Your task to perform on an android device: turn on priority inbox in the gmail app Image 0: 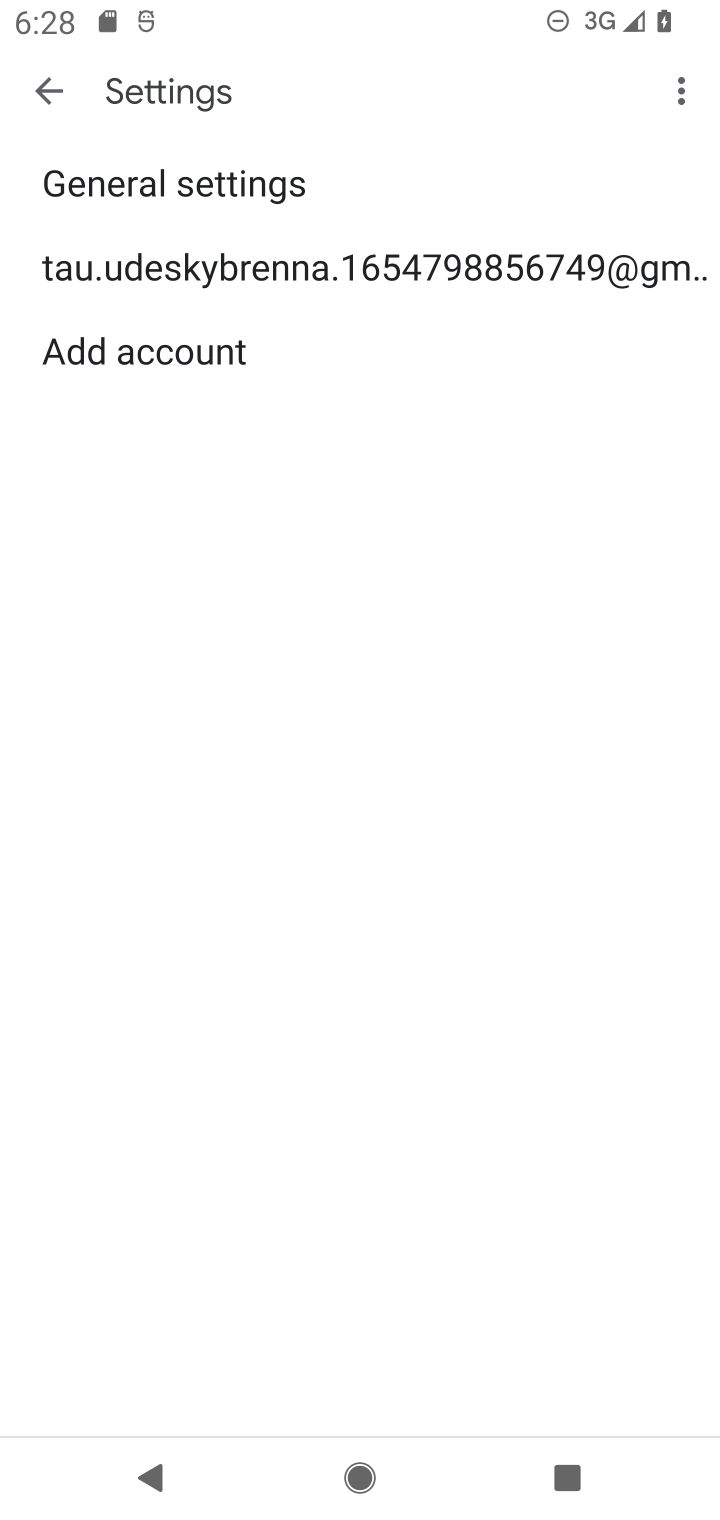
Step 0: press home button
Your task to perform on an android device: turn on priority inbox in the gmail app Image 1: 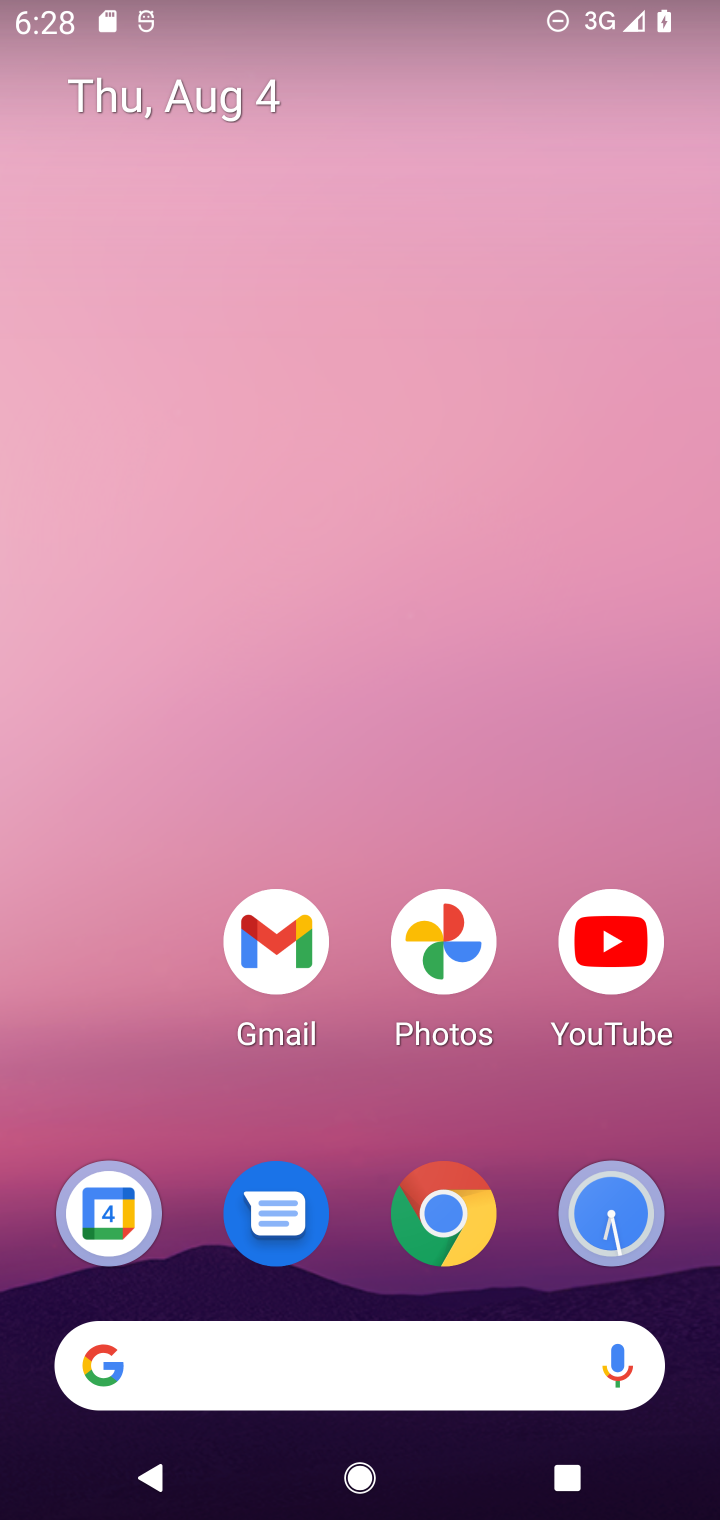
Step 1: drag from (140, 1068) to (132, 331)
Your task to perform on an android device: turn on priority inbox in the gmail app Image 2: 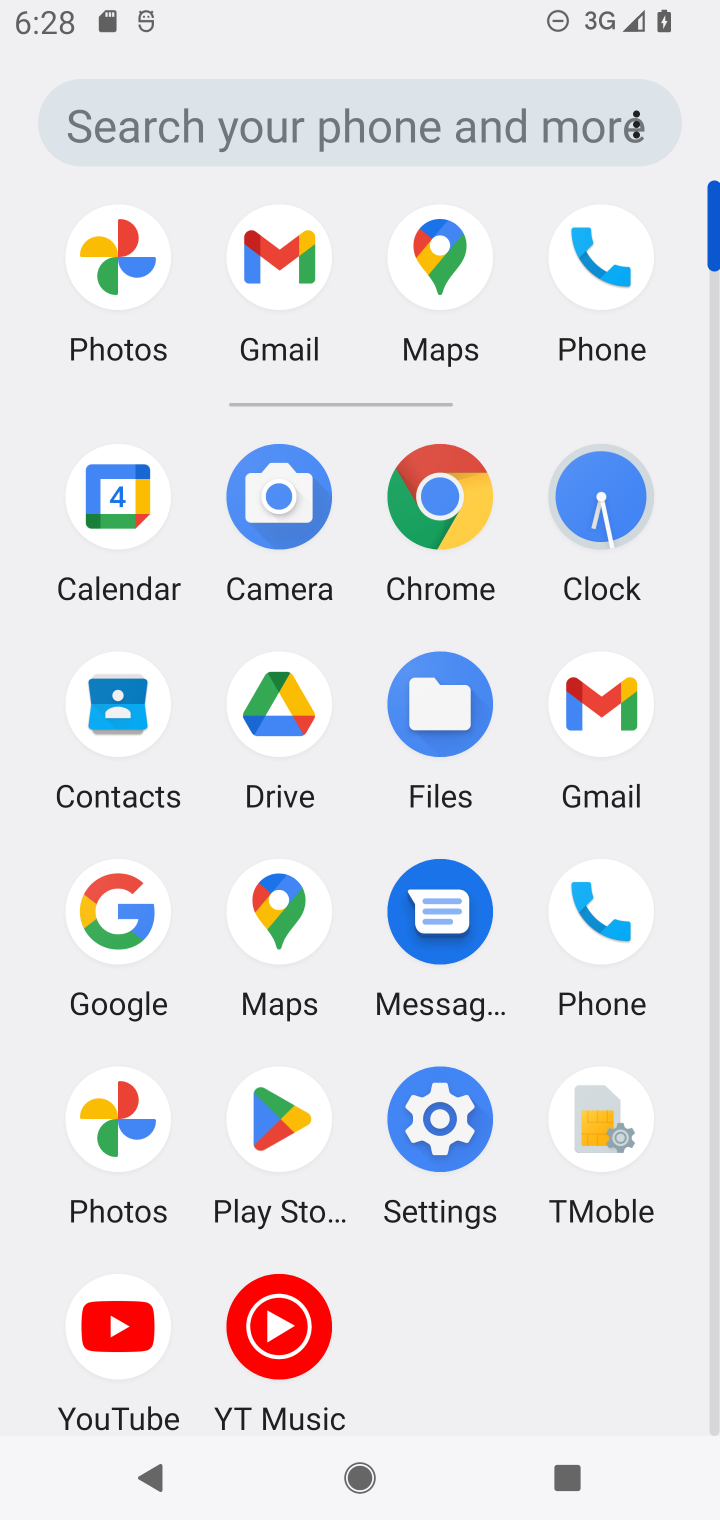
Step 2: click (616, 697)
Your task to perform on an android device: turn on priority inbox in the gmail app Image 3: 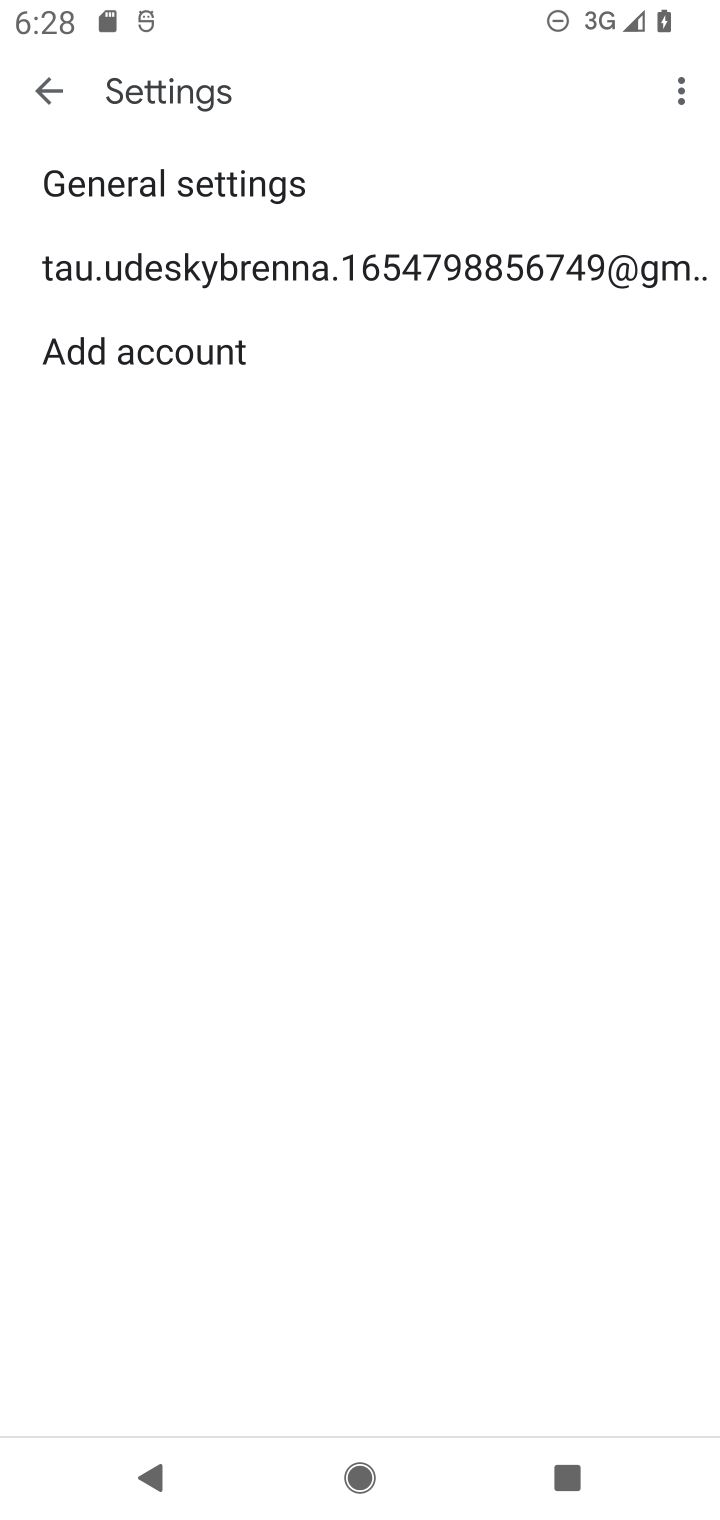
Step 3: click (281, 259)
Your task to perform on an android device: turn on priority inbox in the gmail app Image 4: 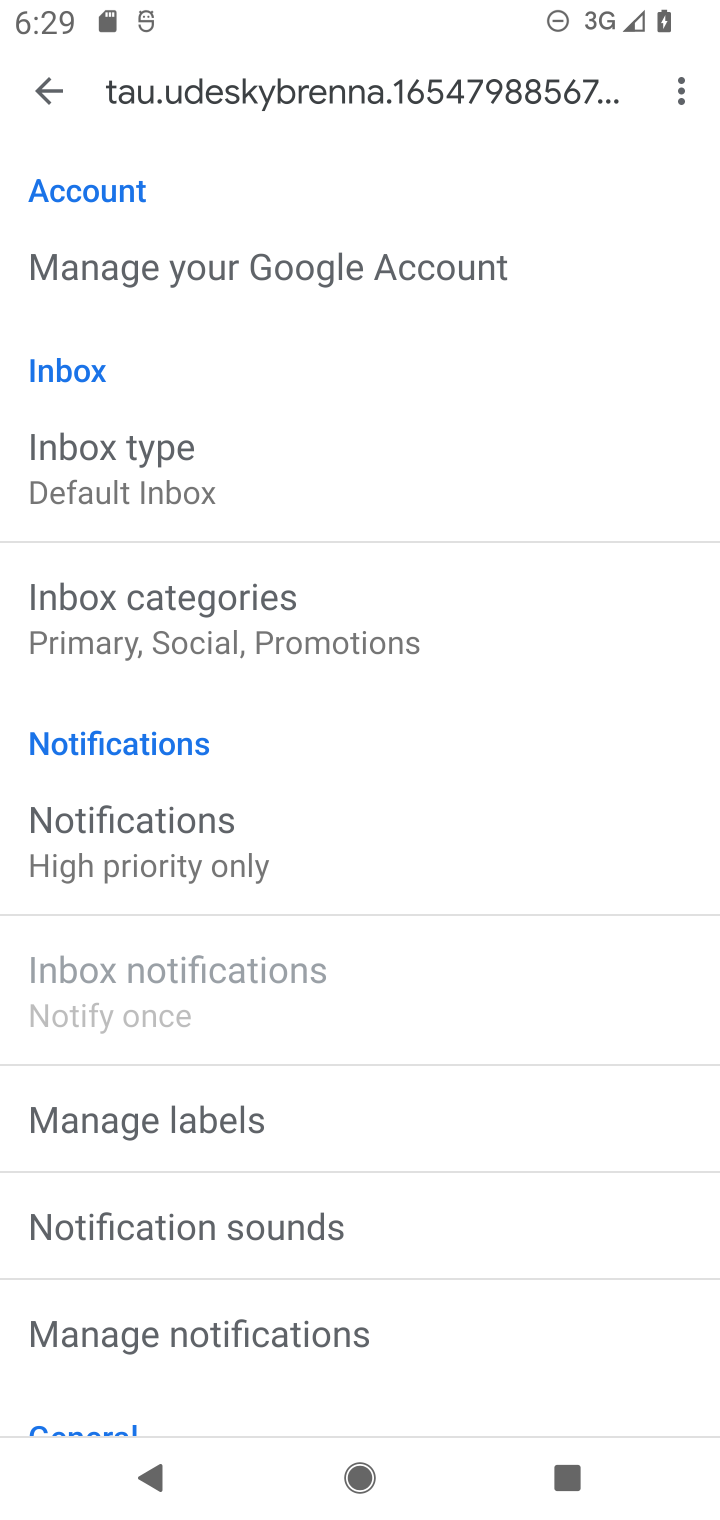
Step 4: drag from (494, 904) to (511, 601)
Your task to perform on an android device: turn on priority inbox in the gmail app Image 5: 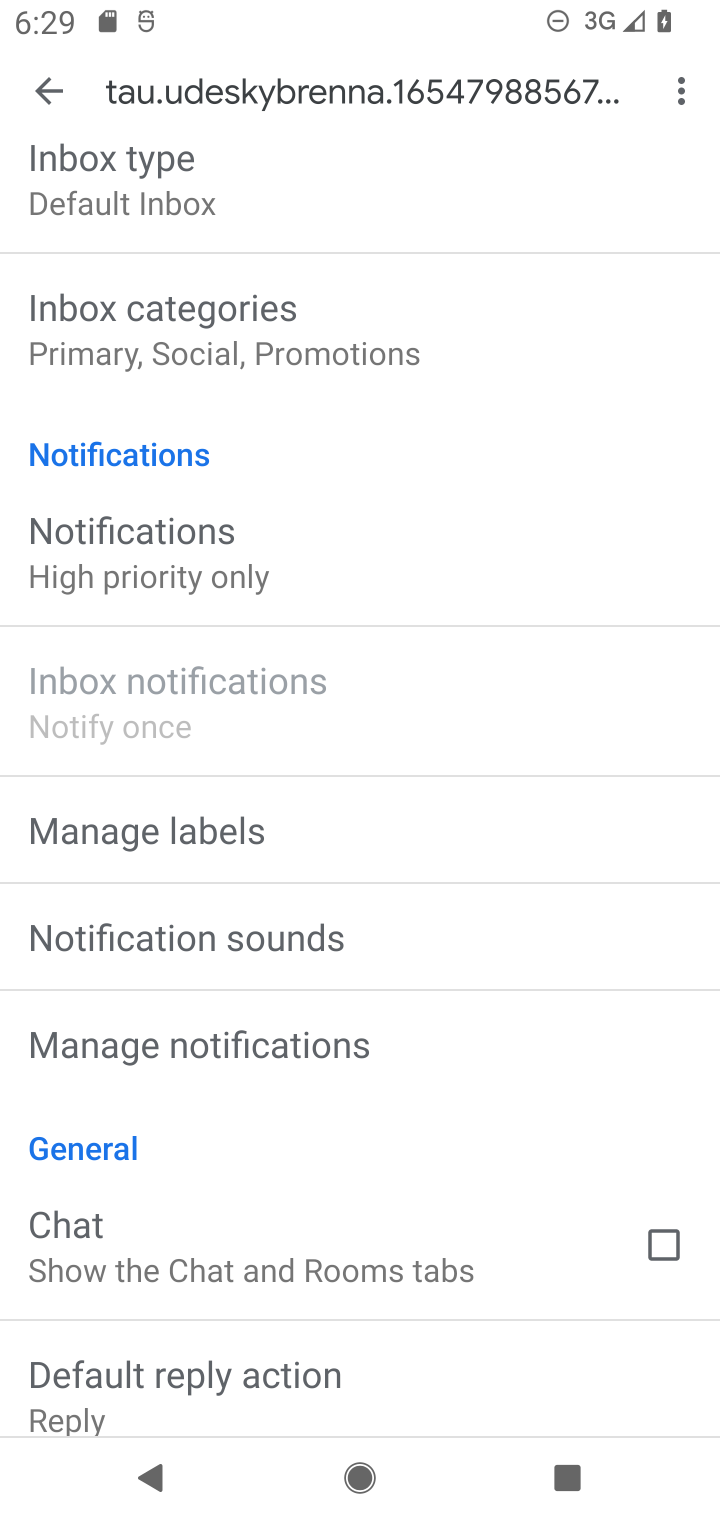
Step 5: drag from (513, 1067) to (519, 736)
Your task to perform on an android device: turn on priority inbox in the gmail app Image 6: 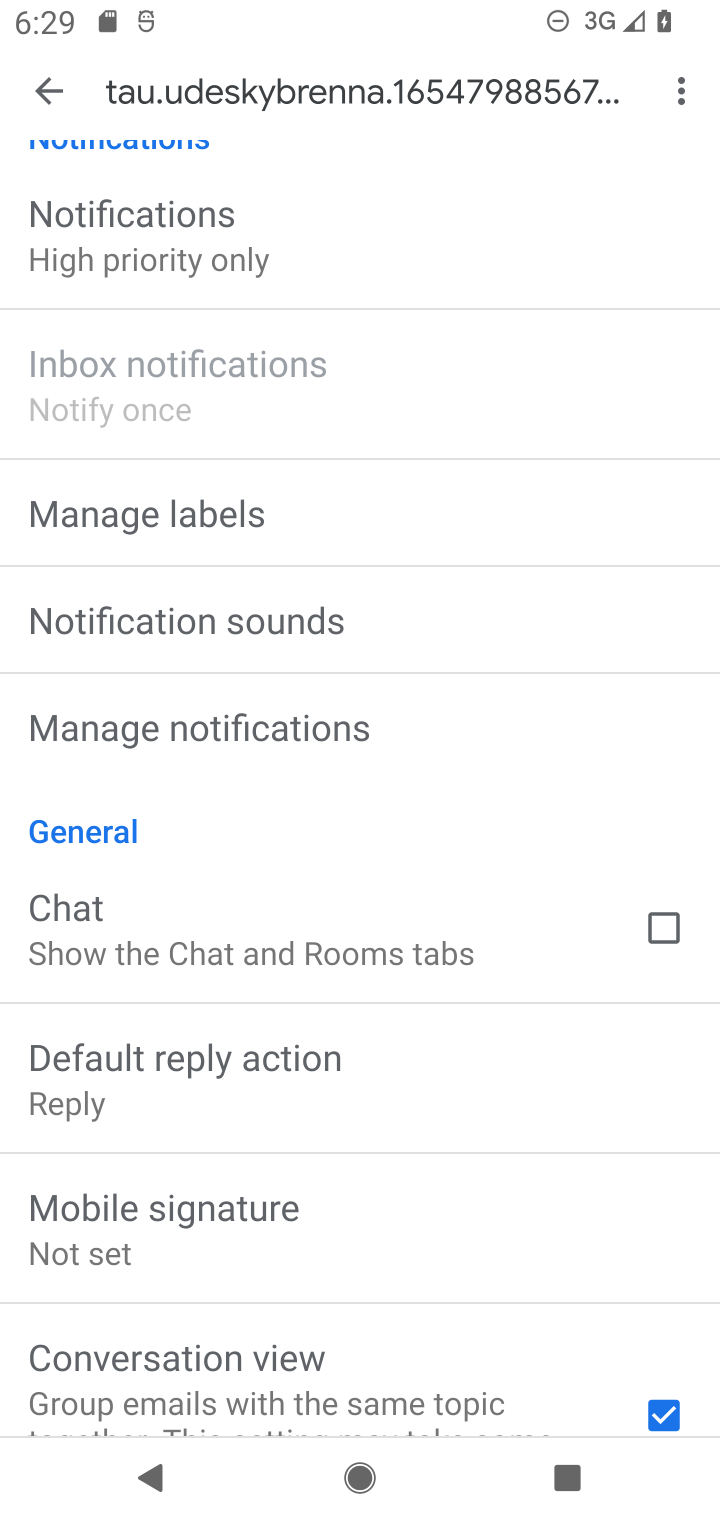
Step 6: drag from (514, 1120) to (520, 790)
Your task to perform on an android device: turn on priority inbox in the gmail app Image 7: 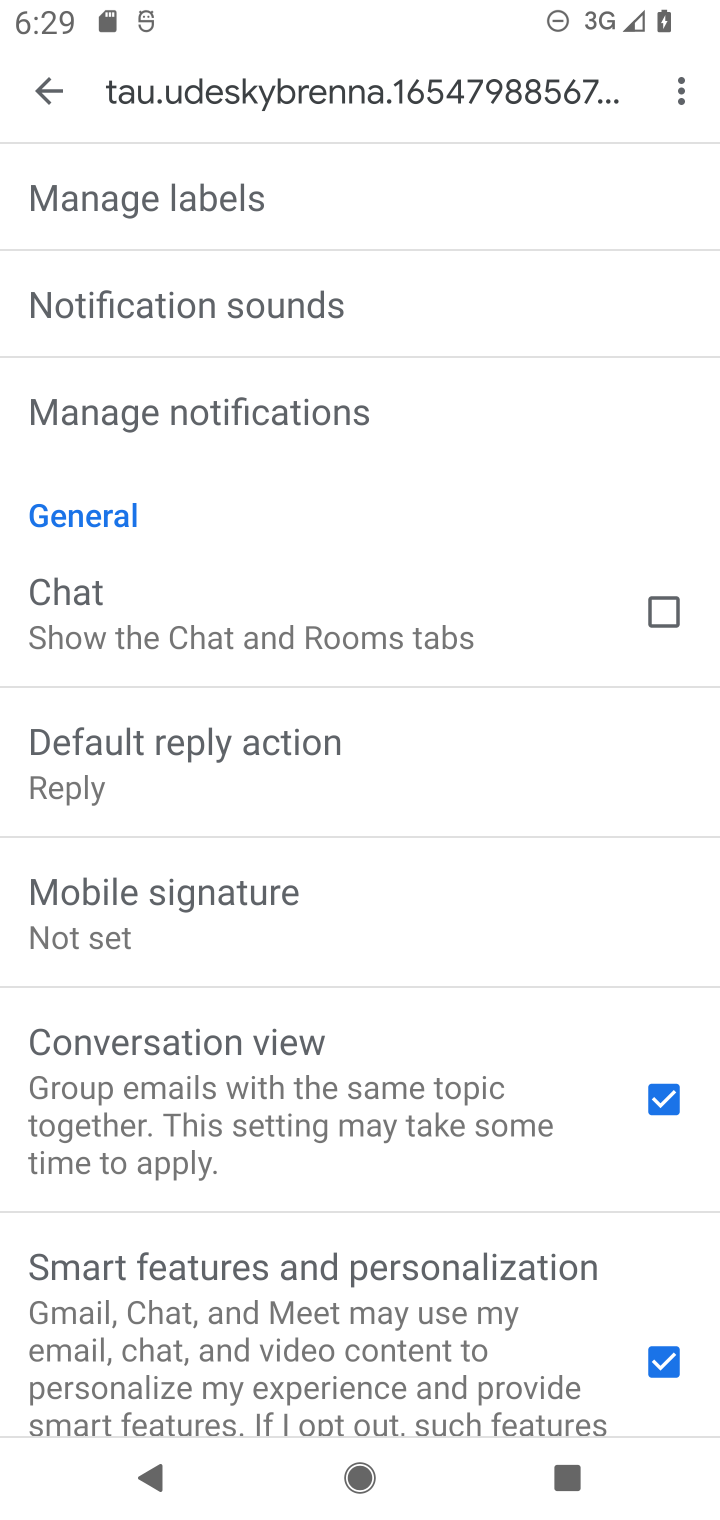
Step 7: drag from (523, 1244) to (521, 753)
Your task to perform on an android device: turn on priority inbox in the gmail app Image 8: 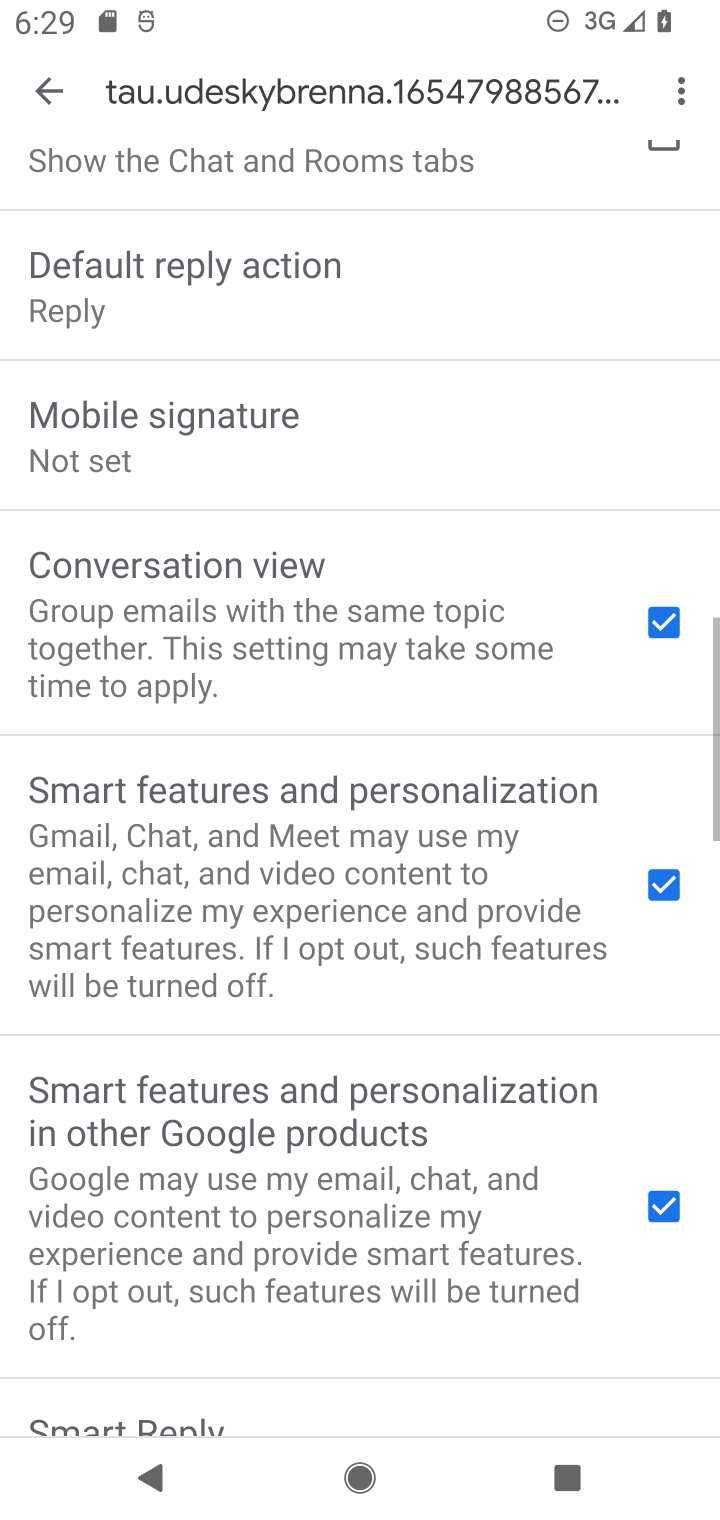
Step 8: drag from (509, 1194) to (509, 700)
Your task to perform on an android device: turn on priority inbox in the gmail app Image 9: 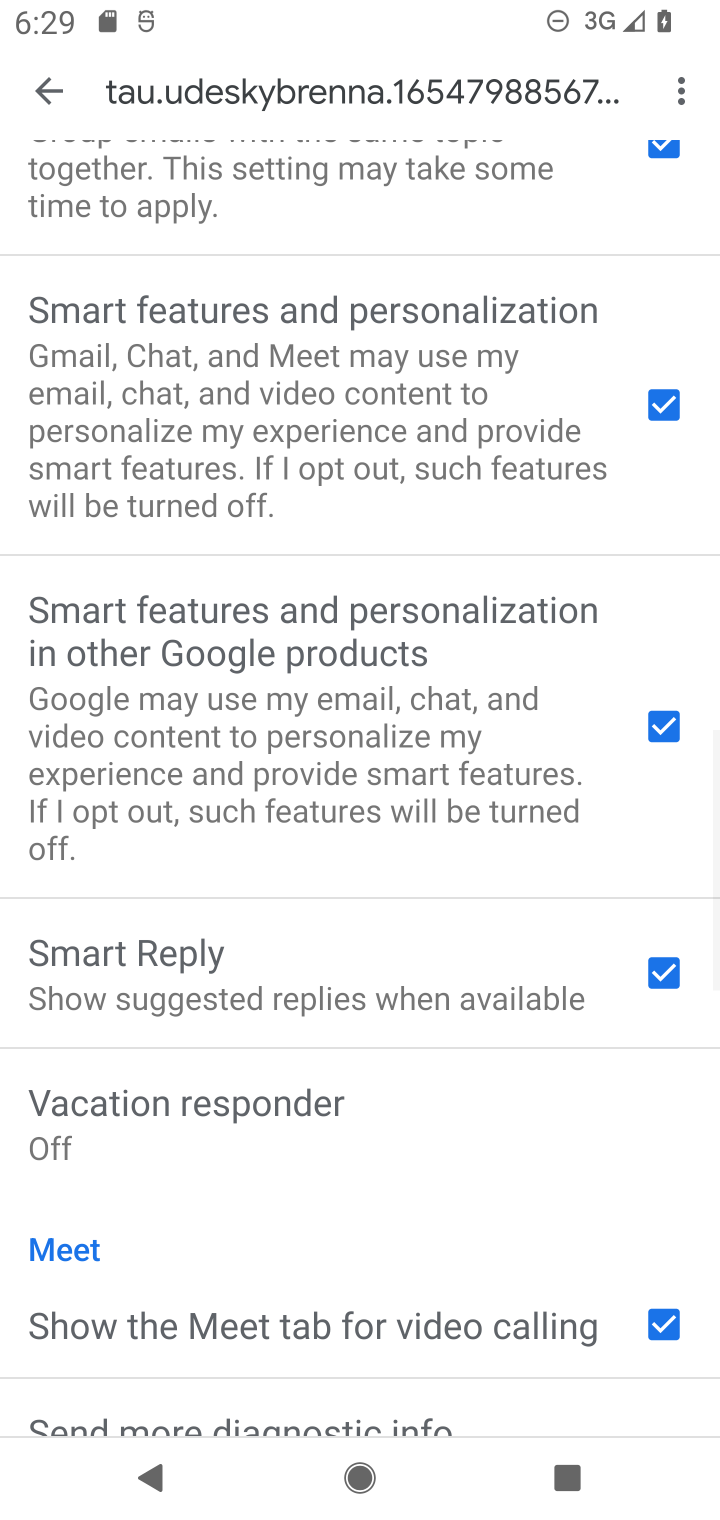
Step 9: drag from (454, 1165) to (454, 767)
Your task to perform on an android device: turn on priority inbox in the gmail app Image 10: 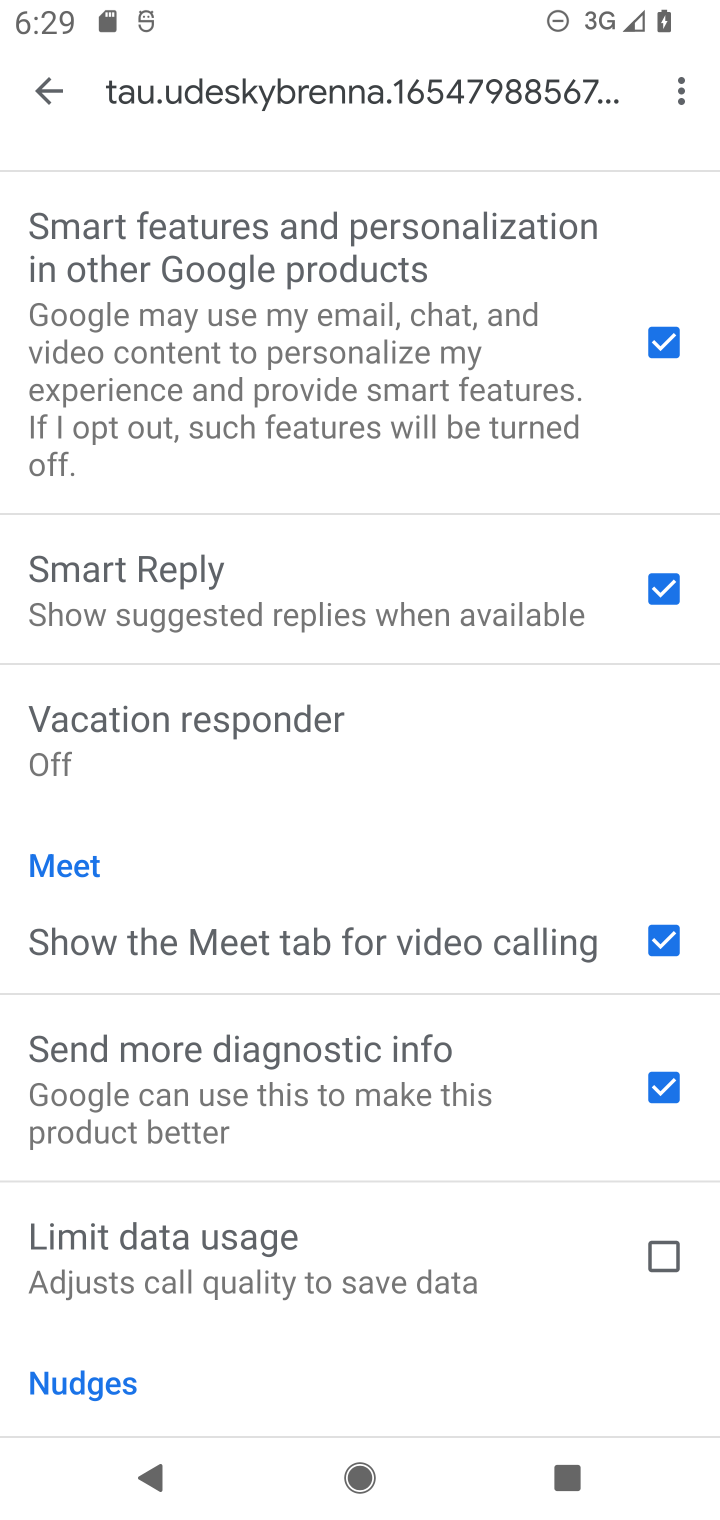
Step 10: drag from (487, 307) to (488, 576)
Your task to perform on an android device: turn on priority inbox in the gmail app Image 11: 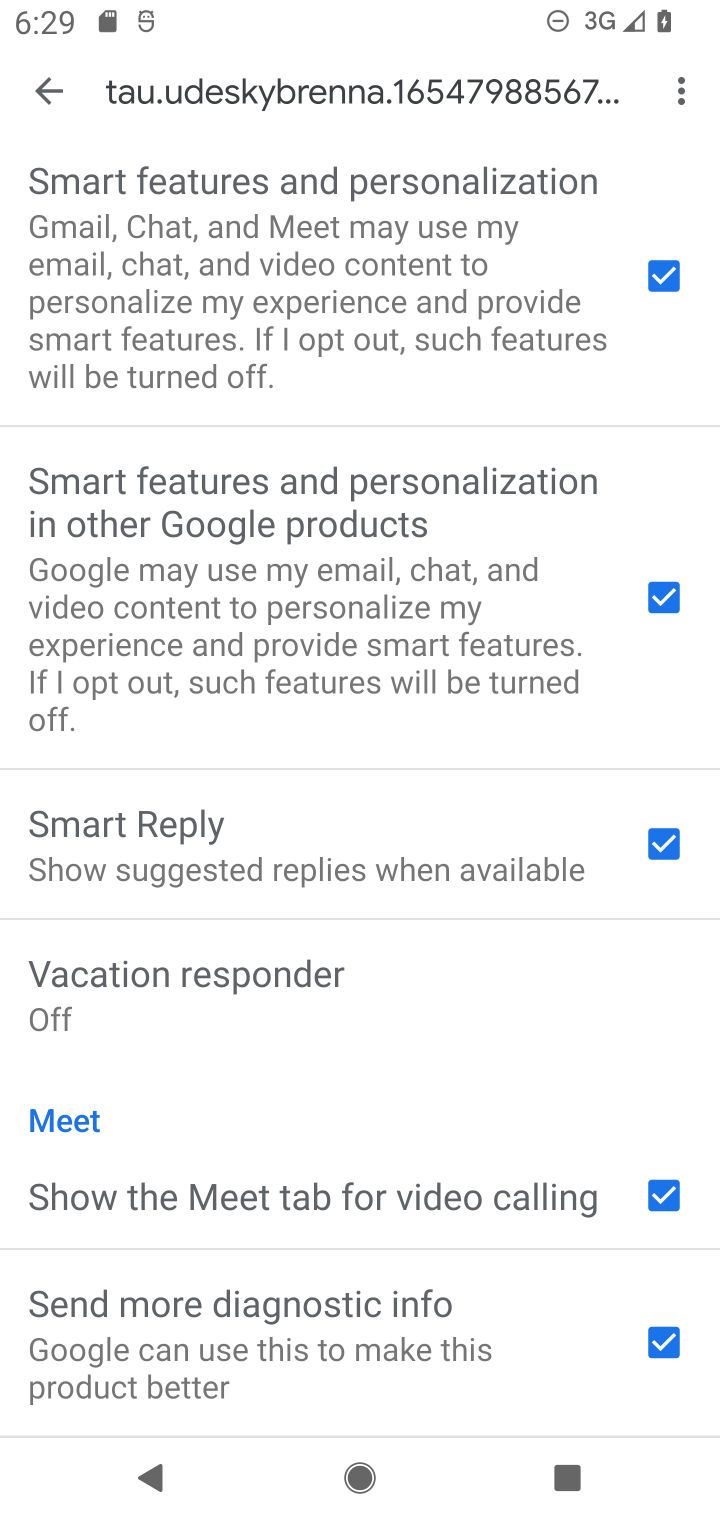
Step 11: drag from (488, 154) to (494, 514)
Your task to perform on an android device: turn on priority inbox in the gmail app Image 12: 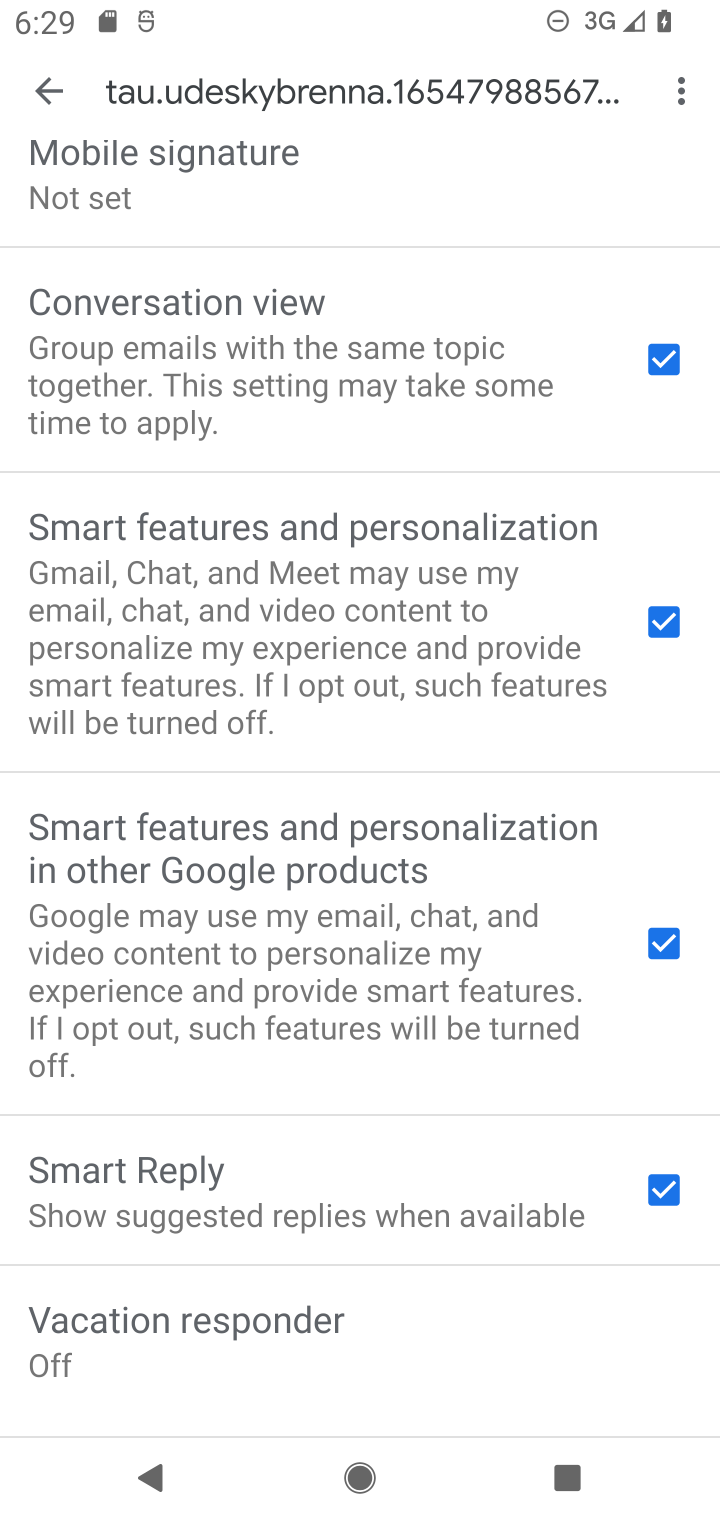
Step 12: drag from (470, 182) to (473, 626)
Your task to perform on an android device: turn on priority inbox in the gmail app Image 13: 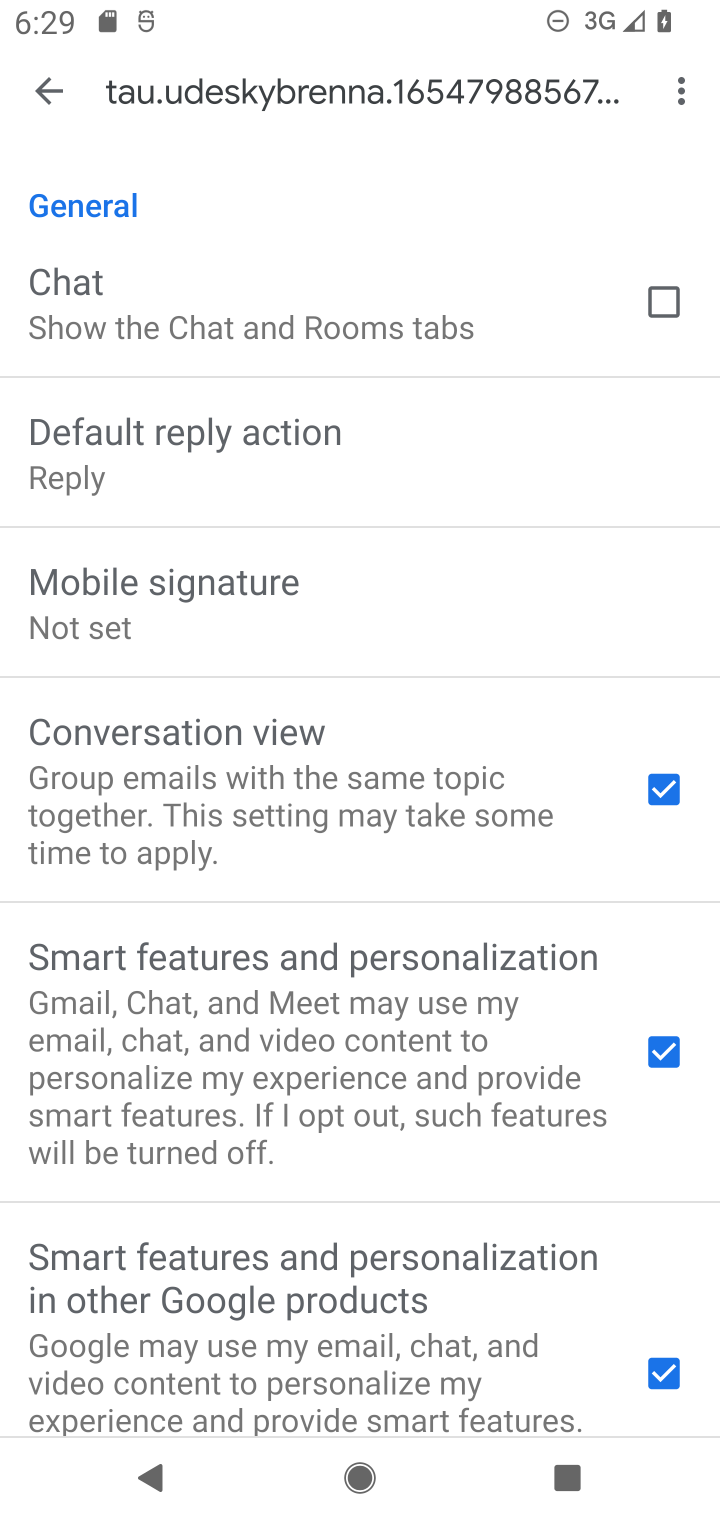
Step 13: drag from (373, 183) to (410, 653)
Your task to perform on an android device: turn on priority inbox in the gmail app Image 14: 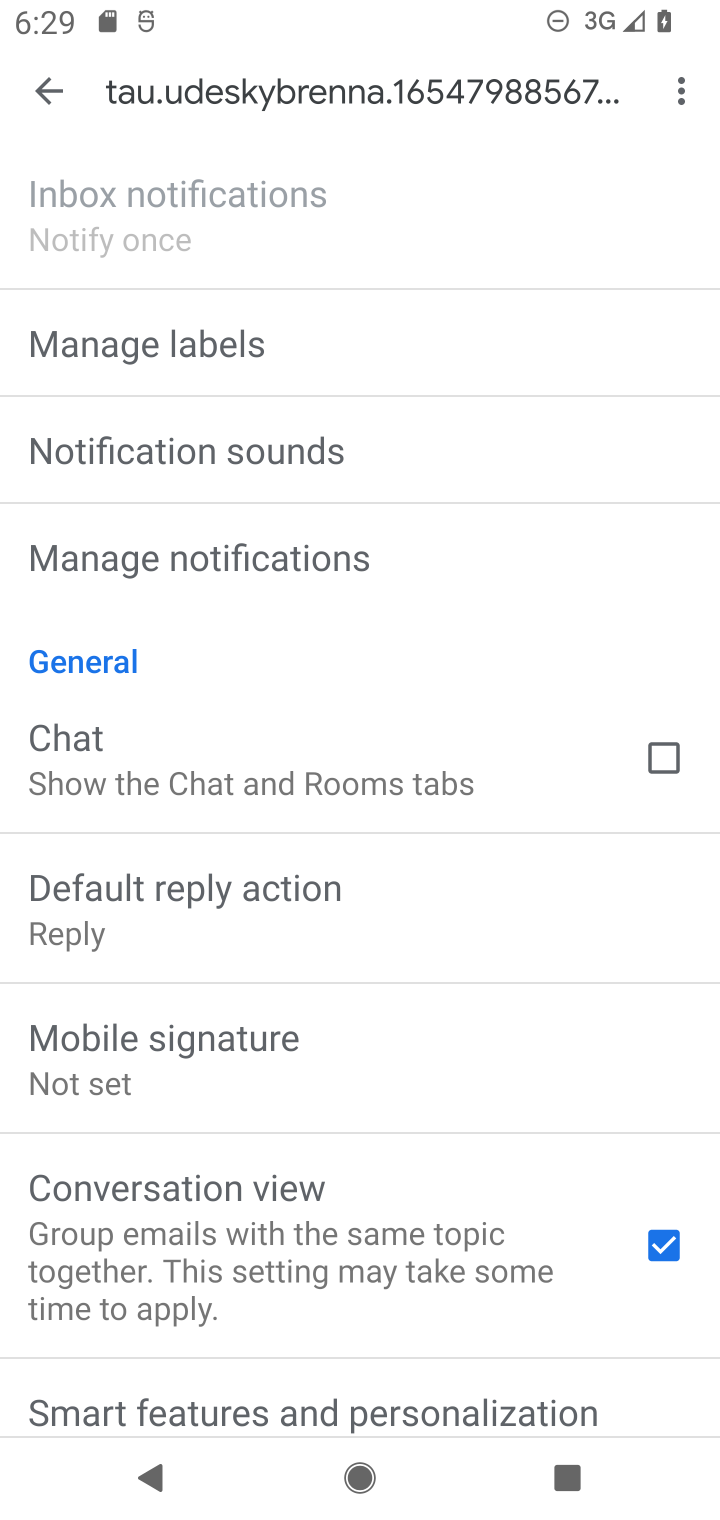
Step 14: drag from (423, 159) to (438, 620)
Your task to perform on an android device: turn on priority inbox in the gmail app Image 15: 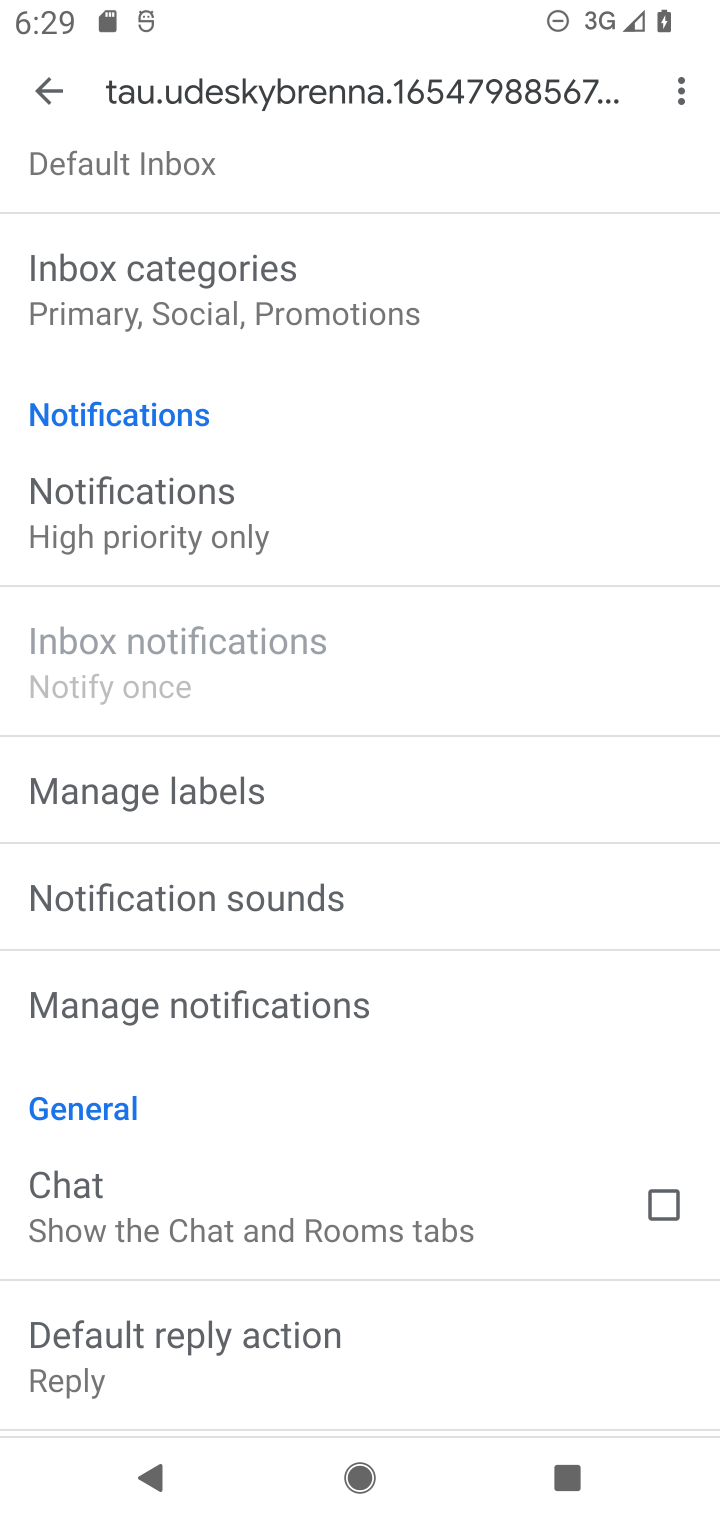
Step 15: drag from (404, 170) to (404, 602)
Your task to perform on an android device: turn on priority inbox in the gmail app Image 16: 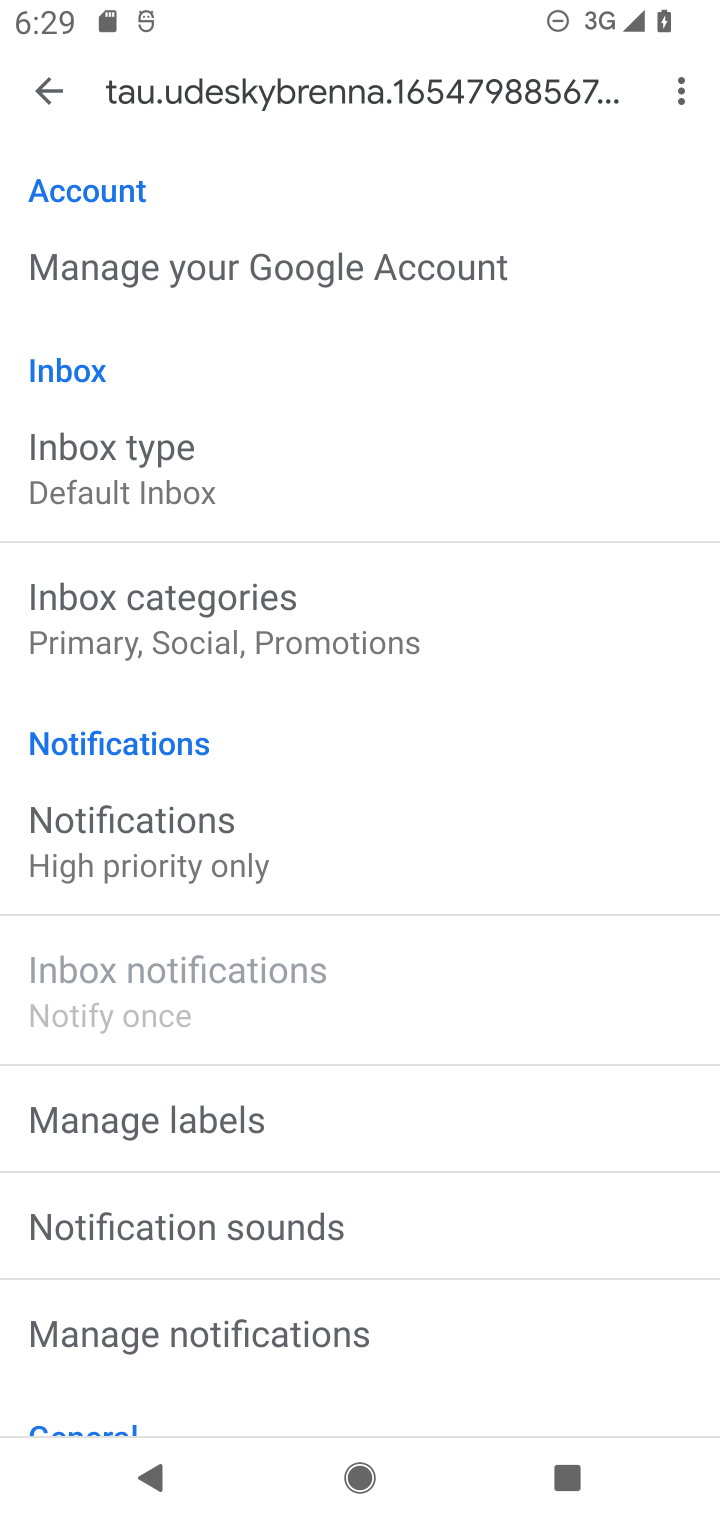
Step 16: click (198, 461)
Your task to perform on an android device: turn on priority inbox in the gmail app Image 17: 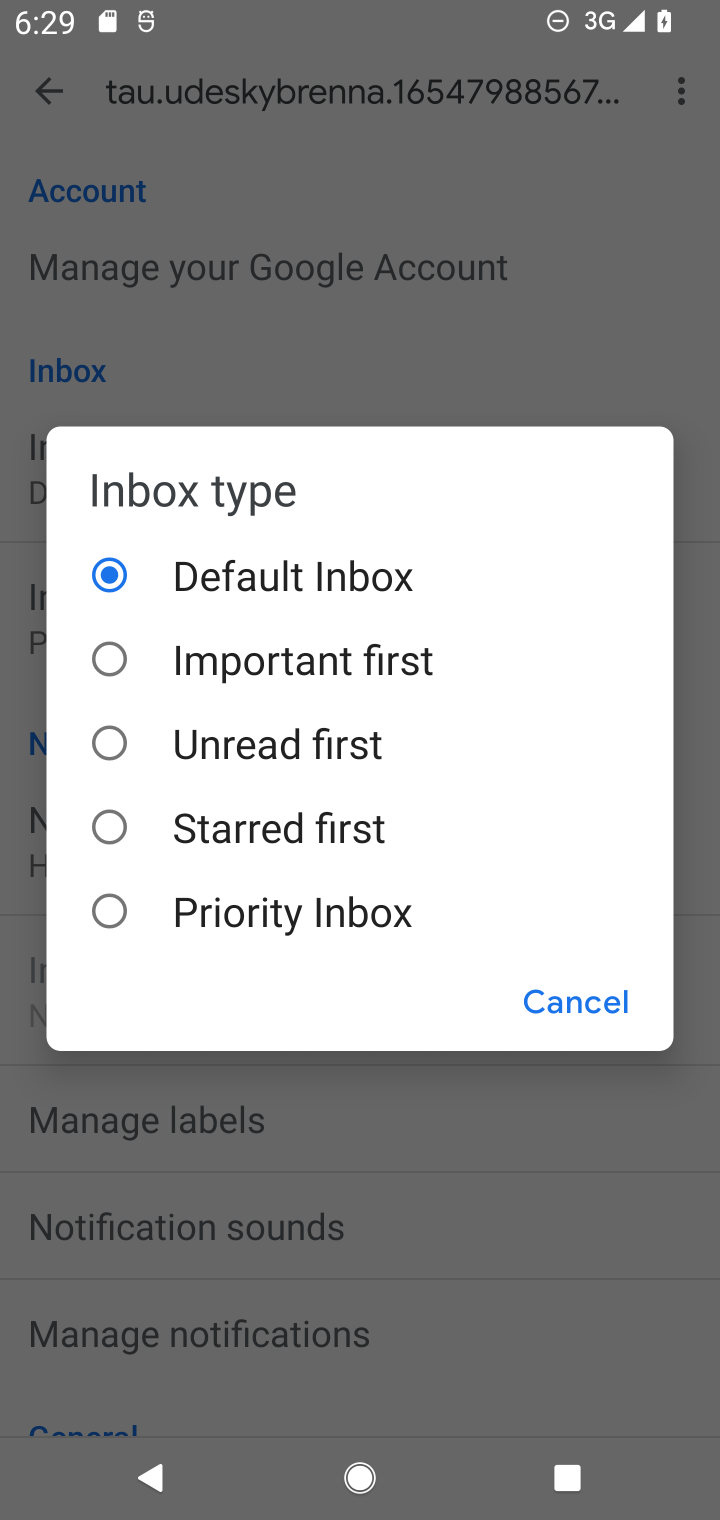
Step 17: click (357, 912)
Your task to perform on an android device: turn on priority inbox in the gmail app Image 18: 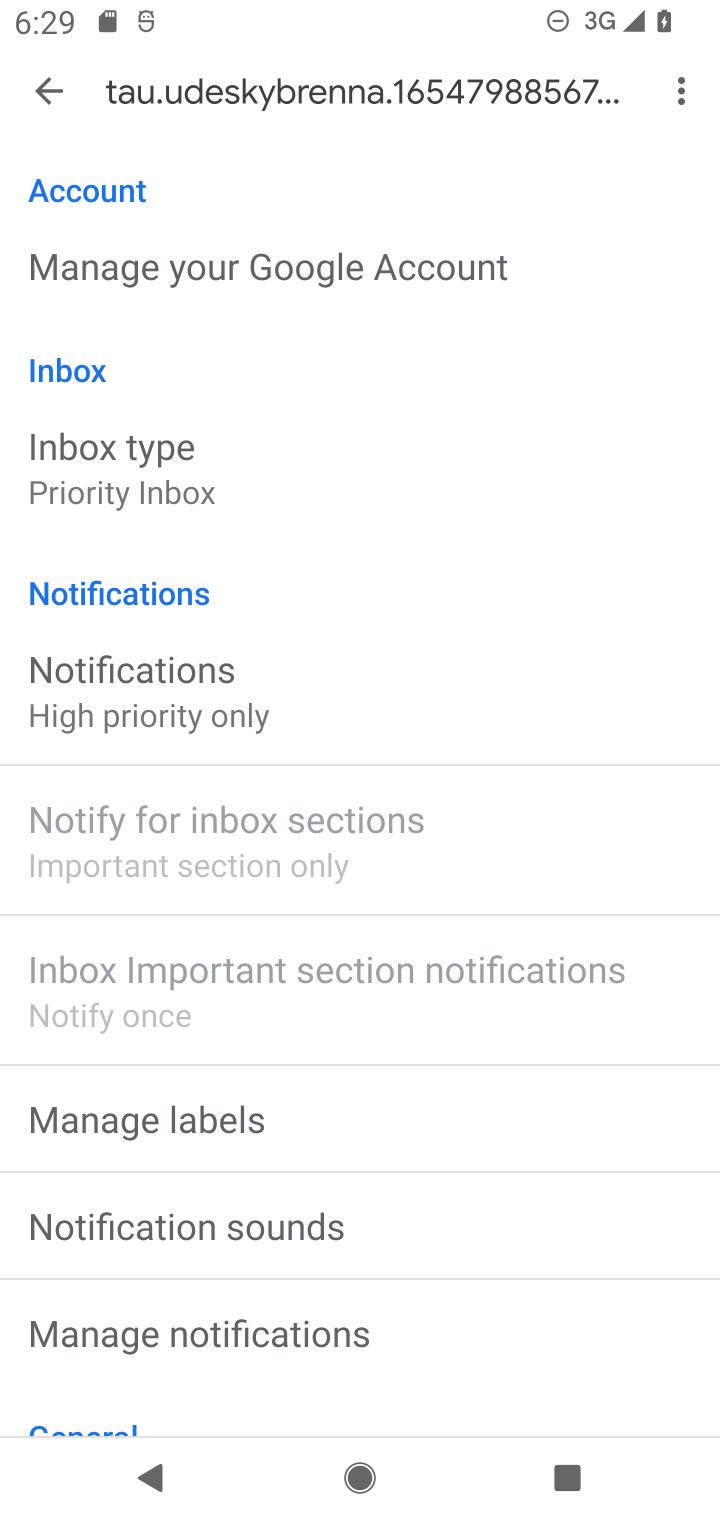
Step 18: task complete